Your task to perform on an android device: What is the news today? Image 0: 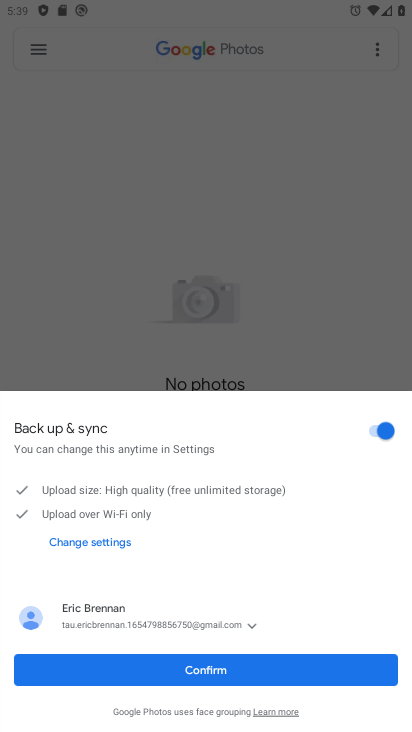
Step 0: press home button
Your task to perform on an android device: What is the news today? Image 1: 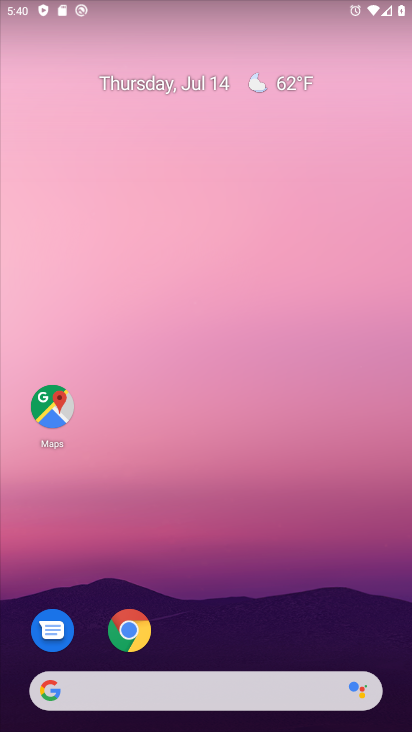
Step 1: drag from (203, 647) to (193, 158)
Your task to perform on an android device: What is the news today? Image 2: 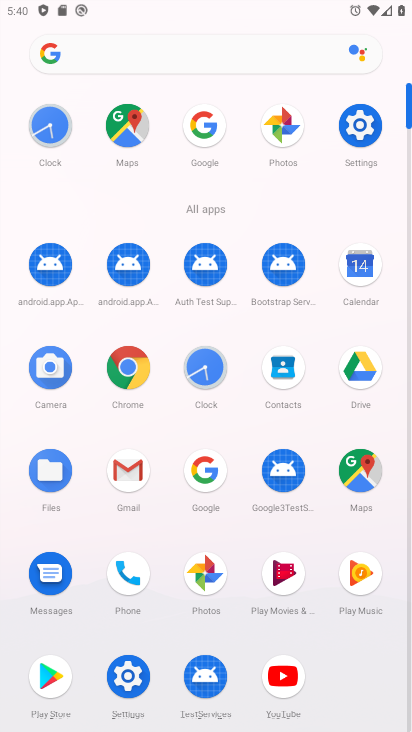
Step 2: click (213, 467)
Your task to perform on an android device: What is the news today? Image 3: 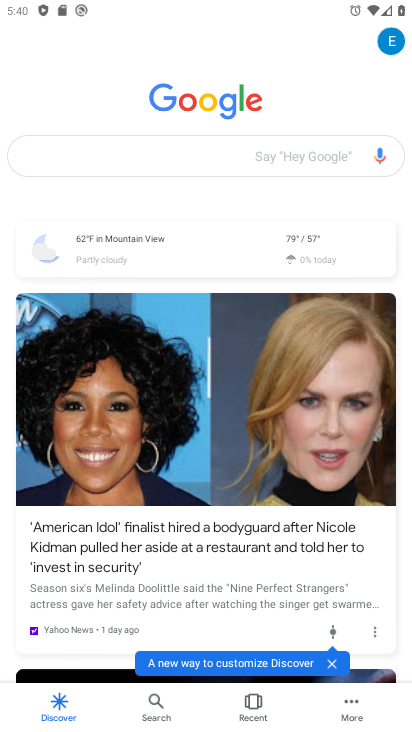
Step 3: task complete